Your task to perform on an android device: clear history in the chrome app Image 0: 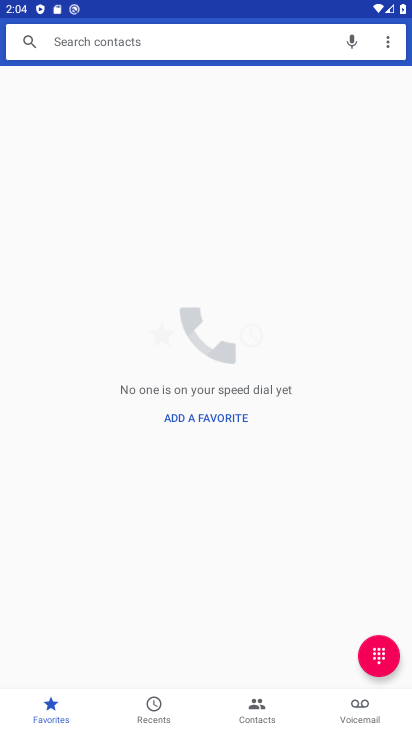
Step 0: press home button
Your task to perform on an android device: clear history in the chrome app Image 1: 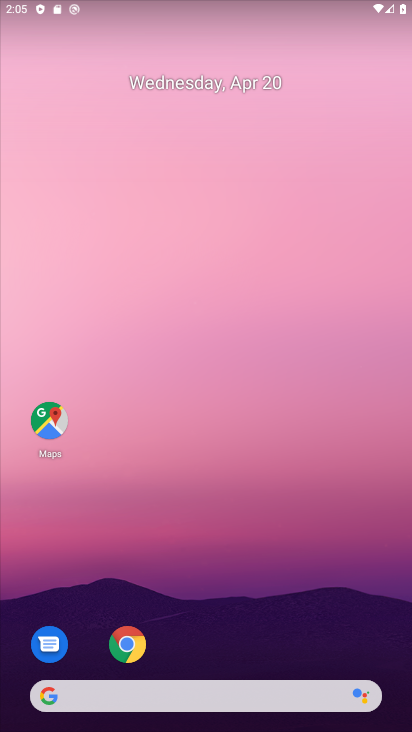
Step 1: click (124, 643)
Your task to perform on an android device: clear history in the chrome app Image 2: 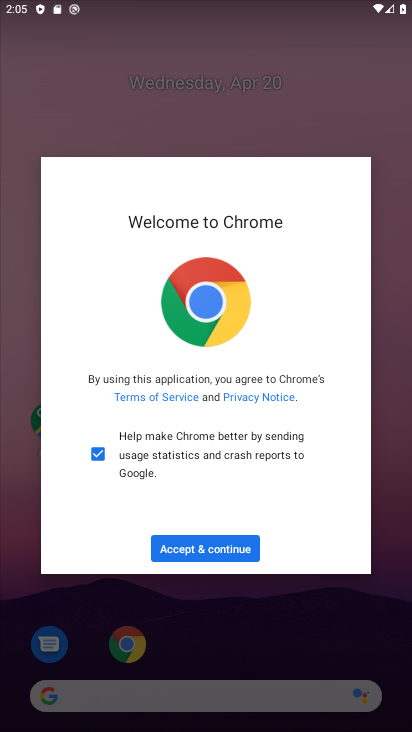
Step 2: click (194, 550)
Your task to perform on an android device: clear history in the chrome app Image 3: 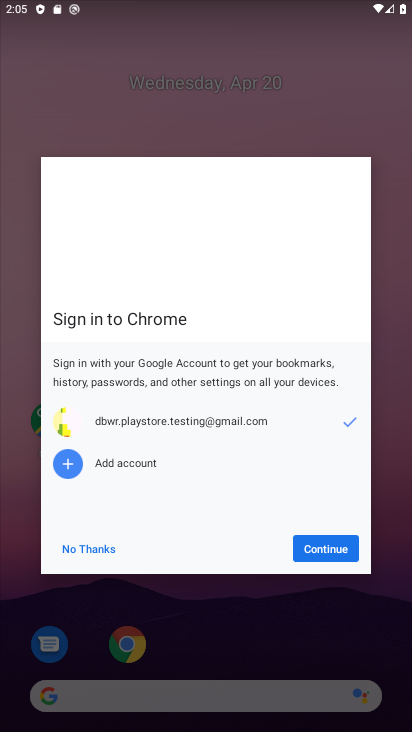
Step 3: click (321, 548)
Your task to perform on an android device: clear history in the chrome app Image 4: 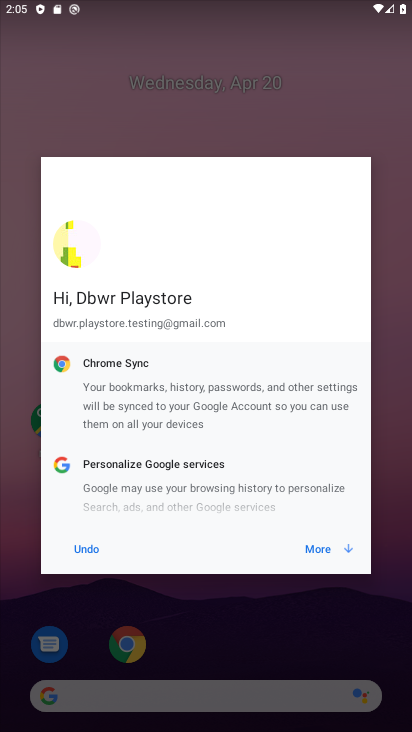
Step 4: click (325, 554)
Your task to perform on an android device: clear history in the chrome app Image 5: 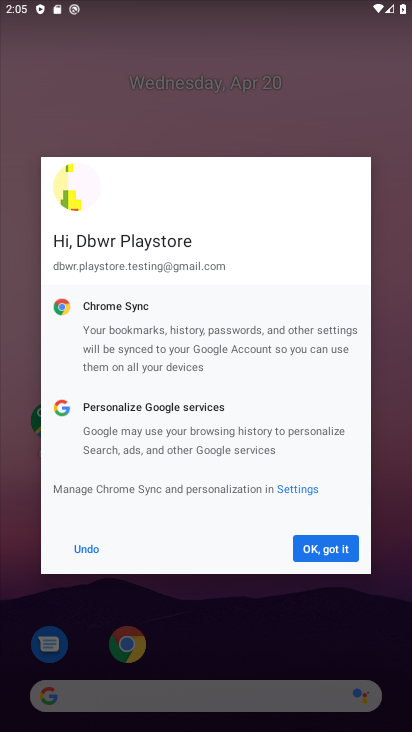
Step 5: click (323, 550)
Your task to perform on an android device: clear history in the chrome app Image 6: 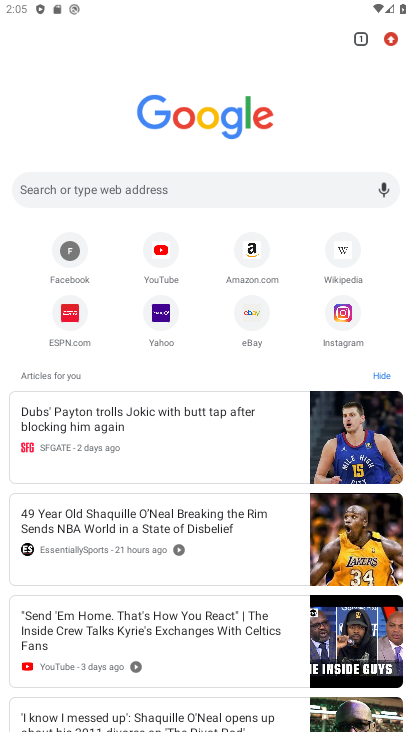
Step 6: click (391, 42)
Your task to perform on an android device: clear history in the chrome app Image 7: 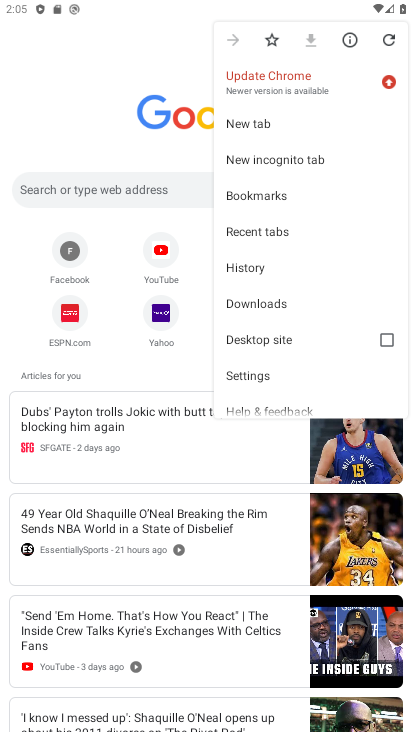
Step 7: click (243, 269)
Your task to perform on an android device: clear history in the chrome app Image 8: 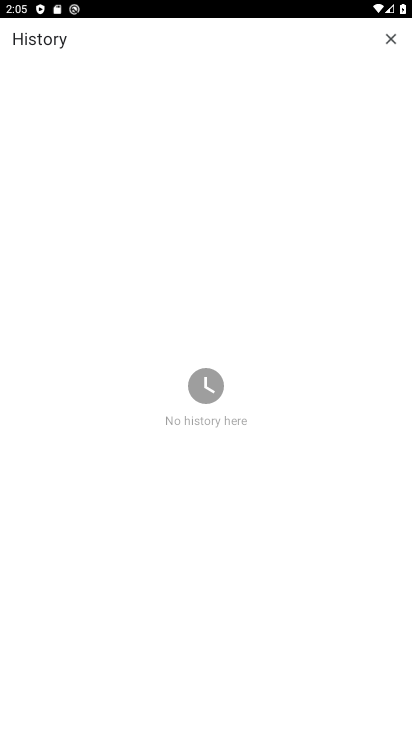
Step 8: task complete